Your task to perform on an android device: Turn off the flashlight Image 0: 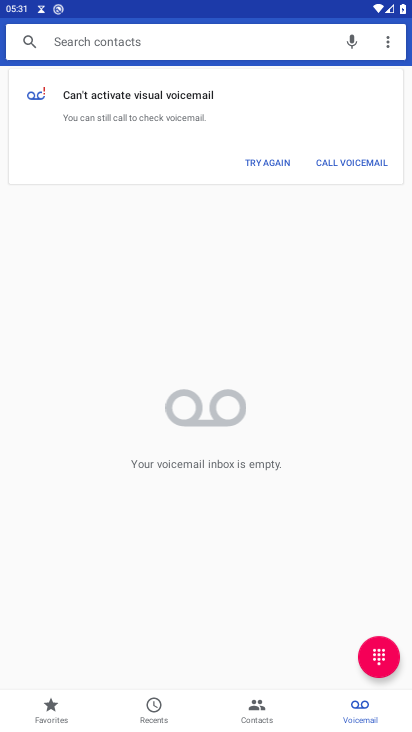
Step 0: press home button
Your task to perform on an android device: Turn off the flashlight Image 1: 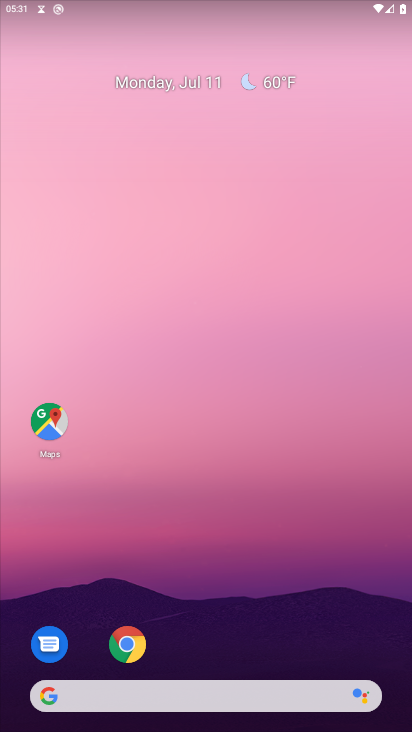
Step 1: drag from (221, 1) to (285, 423)
Your task to perform on an android device: Turn off the flashlight Image 2: 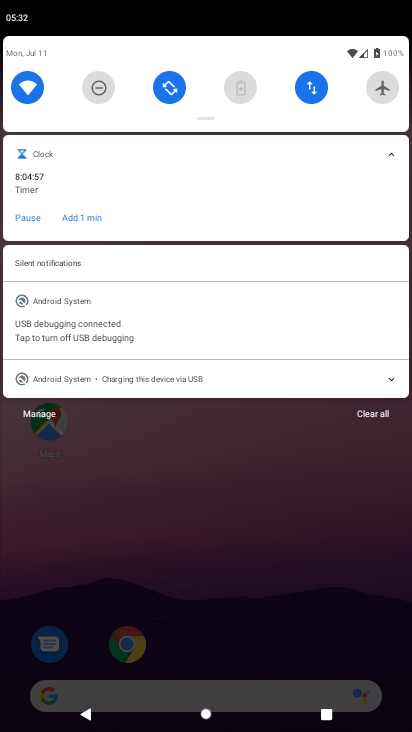
Step 2: drag from (183, 103) to (271, 455)
Your task to perform on an android device: Turn off the flashlight Image 3: 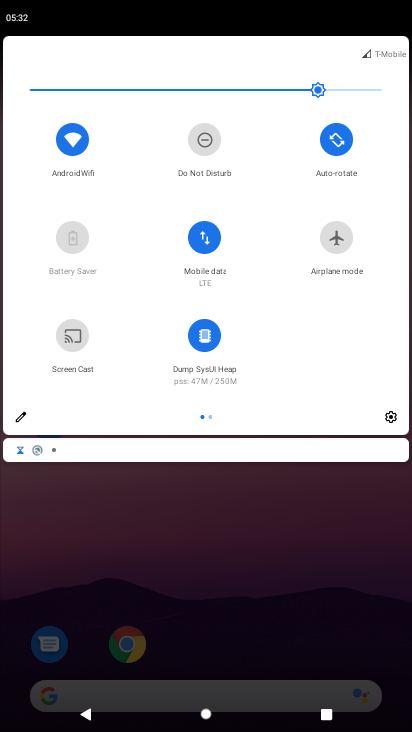
Step 3: drag from (390, 332) to (2, 405)
Your task to perform on an android device: Turn off the flashlight Image 4: 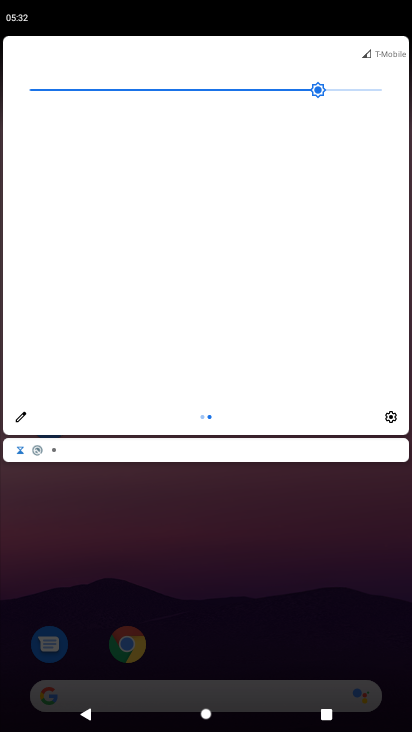
Step 4: click (18, 416)
Your task to perform on an android device: Turn off the flashlight Image 5: 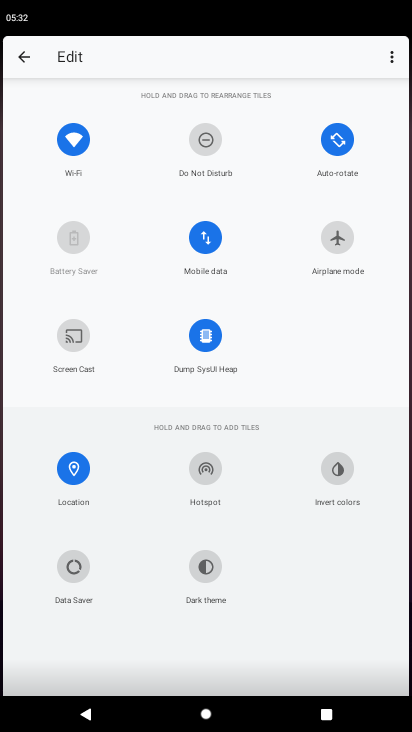
Step 5: task complete